Your task to perform on an android device: remove spam from my inbox in the gmail app Image 0: 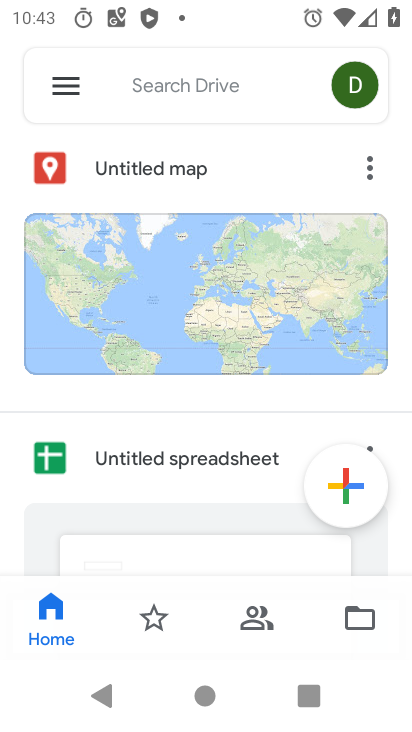
Step 0: press home button
Your task to perform on an android device: remove spam from my inbox in the gmail app Image 1: 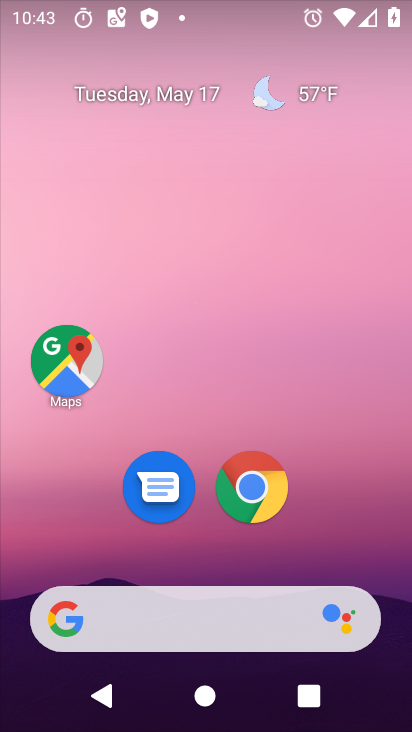
Step 1: drag from (230, 723) to (226, 206)
Your task to perform on an android device: remove spam from my inbox in the gmail app Image 2: 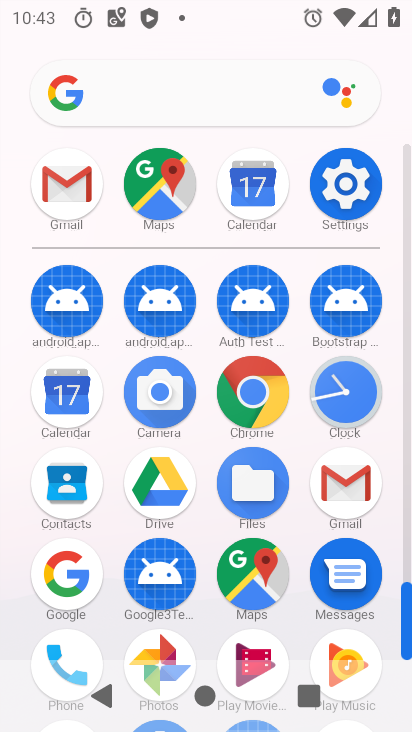
Step 2: click (343, 479)
Your task to perform on an android device: remove spam from my inbox in the gmail app Image 3: 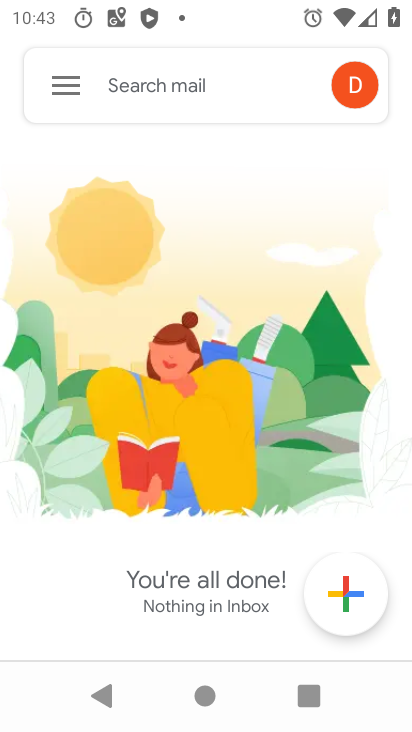
Step 3: task complete